Your task to perform on an android device: visit the assistant section in the google photos Image 0: 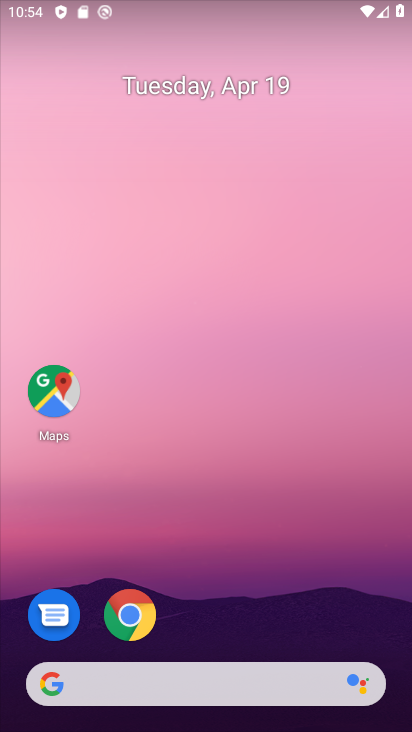
Step 0: drag from (210, 626) to (222, 104)
Your task to perform on an android device: visit the assistant section in the google photos Image 1: 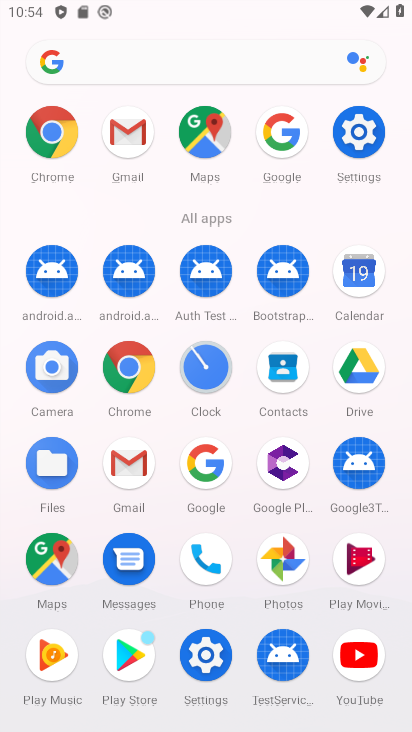
Step 1: click (280, 556)
Your task to perform on an android device: visit the assistant section in the google photos Image 2: 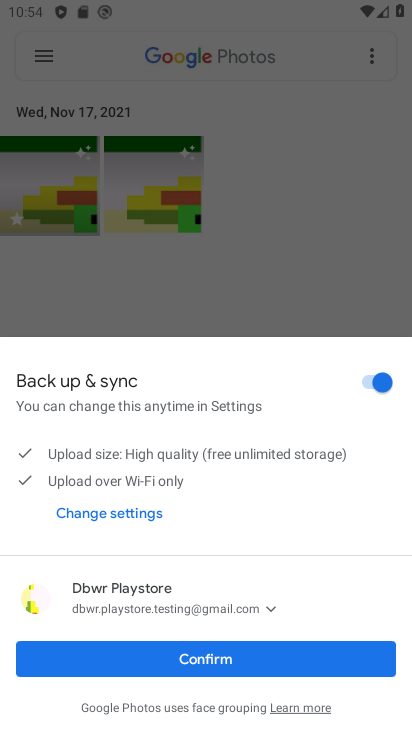
Step 2: click (247, 665)
Your task to perform on an android device: visit the assistant section in the google photos Image 3: 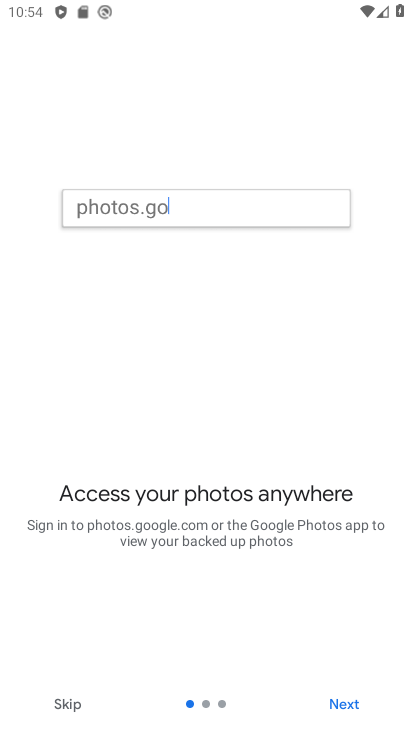
Step 3: click (250, 700)
Your task to perform on an android device: visit the assistant section in the google photos Image 4: 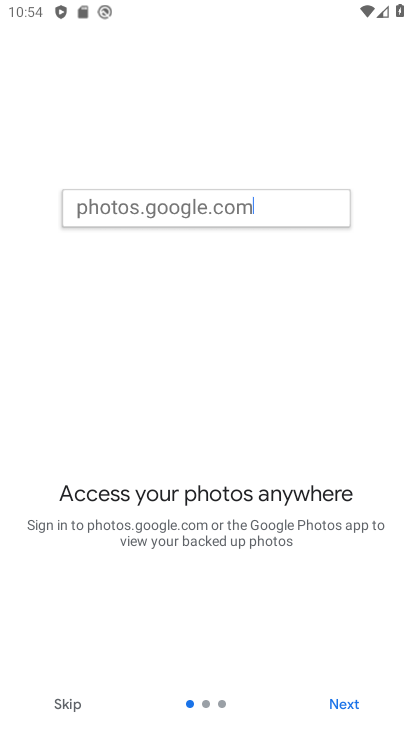
Step 4: click (350, 713)
Your task to perform on an android device: visit the assistant section in the google photos Image 5: 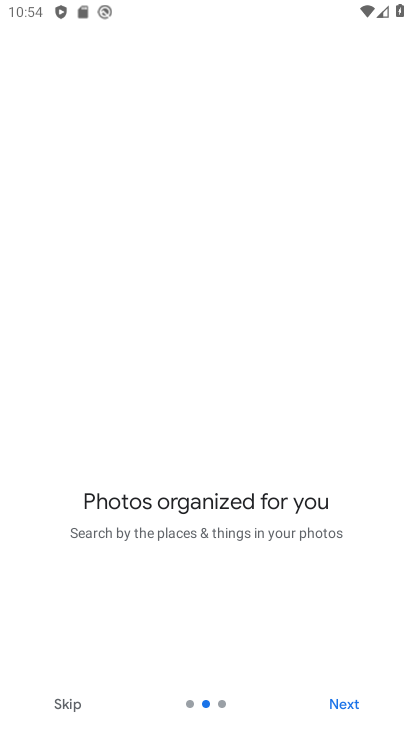
Step 5: click (345, 699)
Your task to perform on an android device: visit the assistant section in the google photos Image 6: 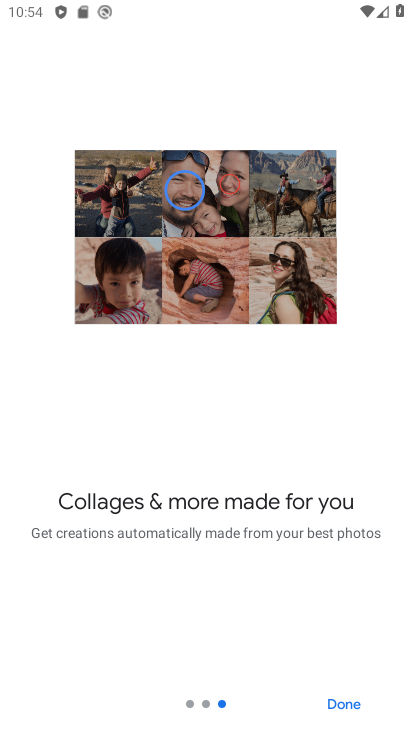
Step 6: click (345, 699)
Your task to perform on an android device: visit the assistant section in the google photos Image 7: 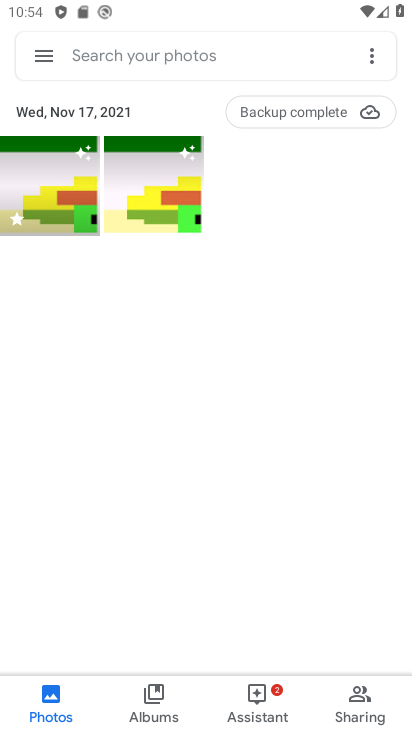
Step 7: click (266, 693)
Your task to perform on an android device: visit the assistant section in the google photos Image 8: 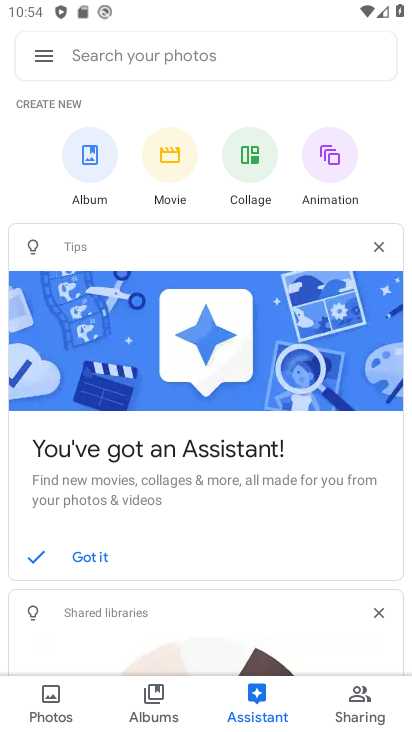
Step 8: task complete